Your task to perform on an android device: turn on data saver in the chrome app Image 0: 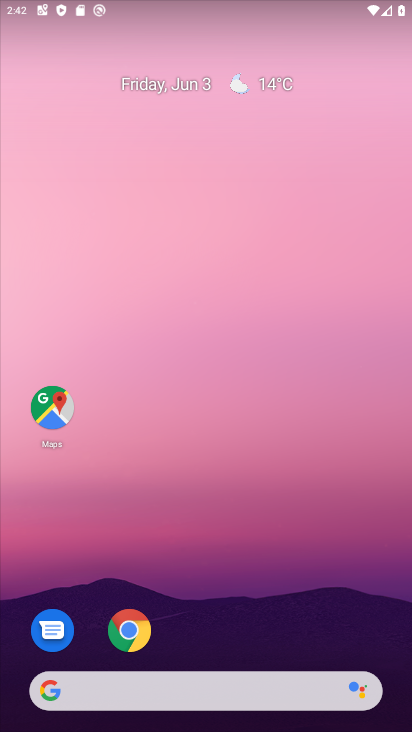
Step 0: drag from (202, 632) to (130, 219)
Your task to perform on an android device: turn on data saver in the chrome app Image 1: 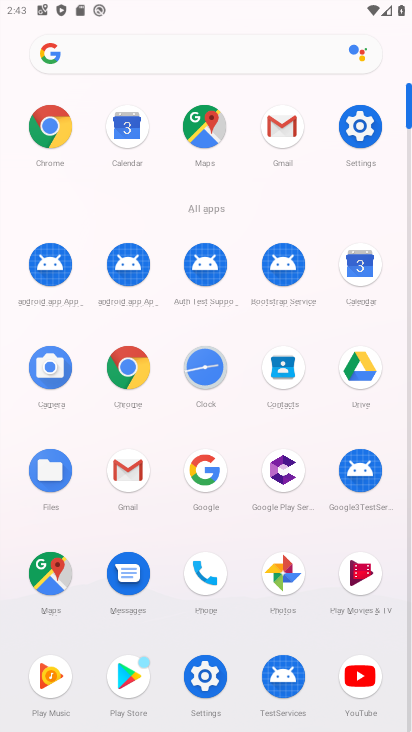
Step 1: click (64, 132)
Your task to perform on an android device: turn on data saver in the chrome app Image 2: 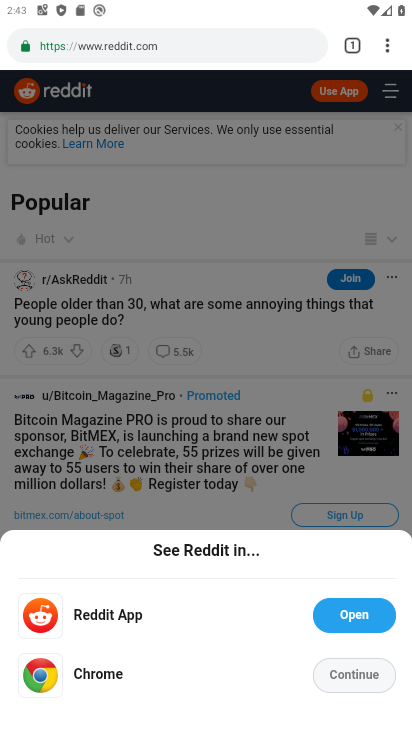
Step 2: click (372, 682)
Your task to perform on an android device: turn on data saver in the chrome app Image 3: 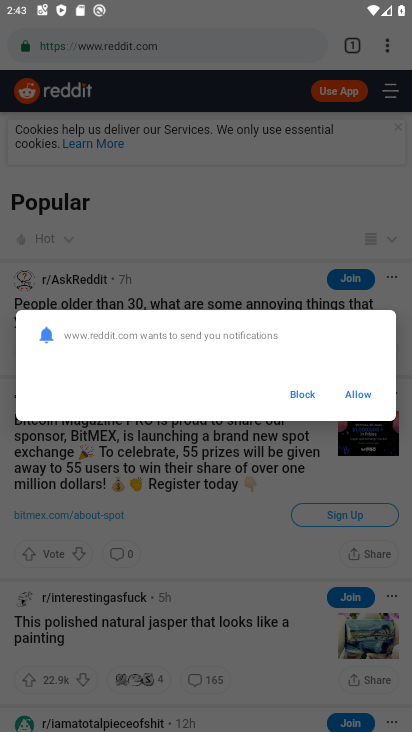
Step 3: click (362, 395)
Your task to perform on an android device: turn on data saver in the chrome app Image 4: 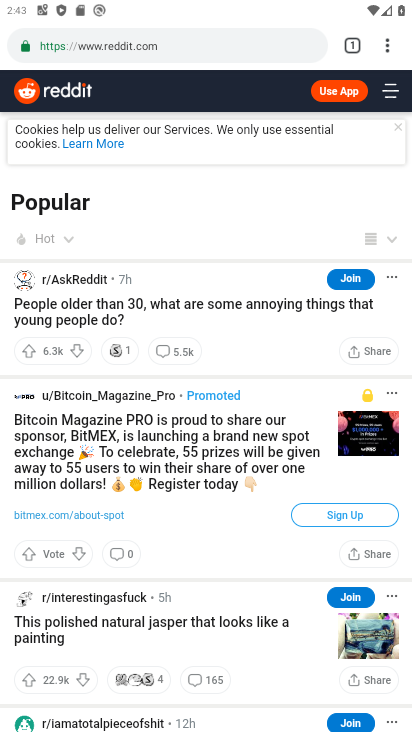
Step 4: click (398, 46)
Your task to perform on an android device: turn on data saver in the chrome app Image 5: 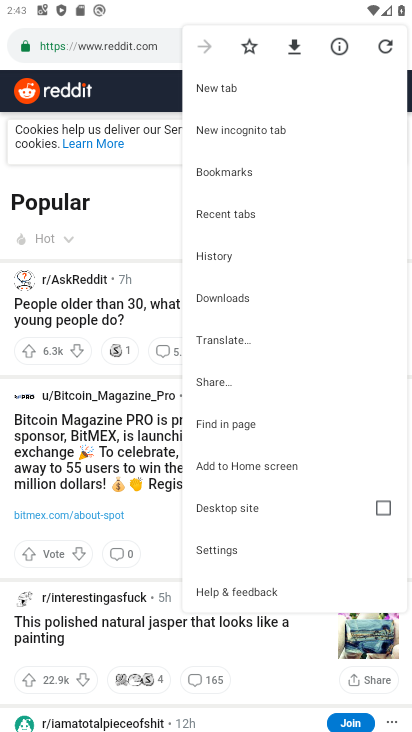
Step 5: click (263, 562)
Your task to perform on an android device: turn on data saver in the chrome app Image 6: 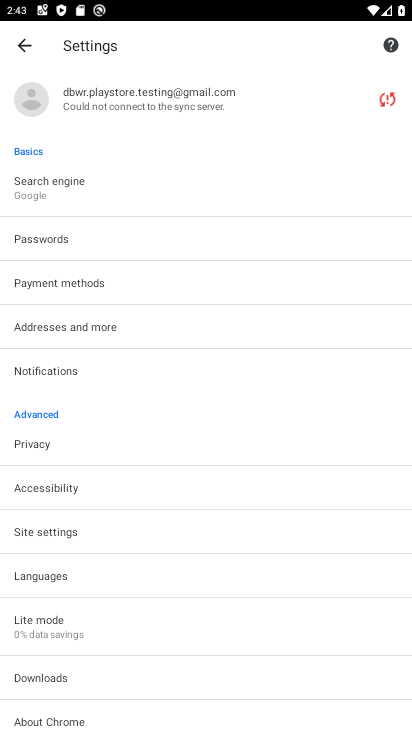
Step 6: click (127, 635)
Your task to perform on an android device: turn on data saver in the chrome app Image 7: 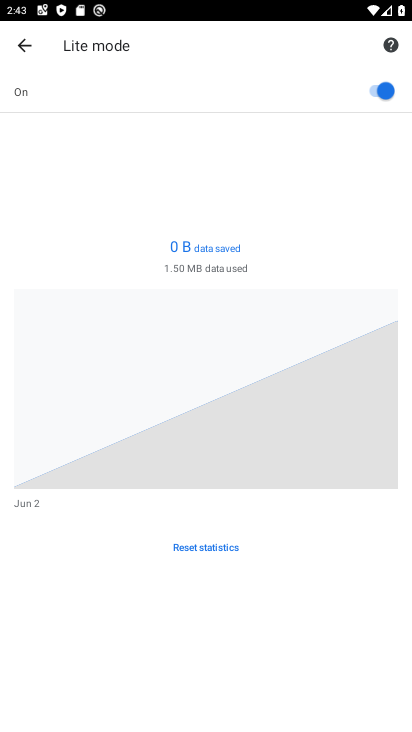
Step 7: task complete